Your task to perform on an android device: Open my contact list Image 0: 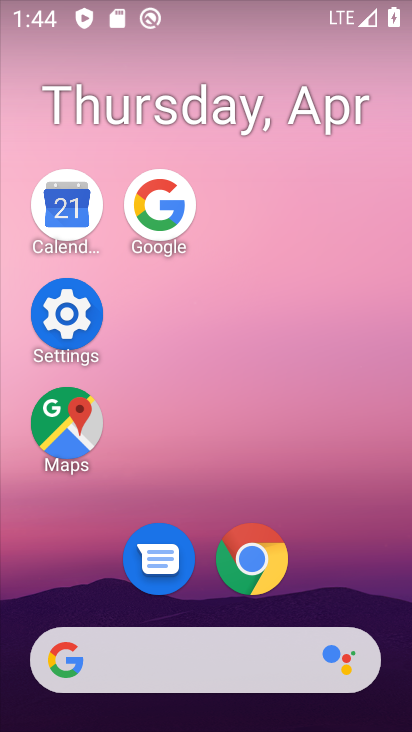
Step 0: drag from (266, 111) to (282, 29)
Your task to perform on an android device: Open my contact list Image 1: 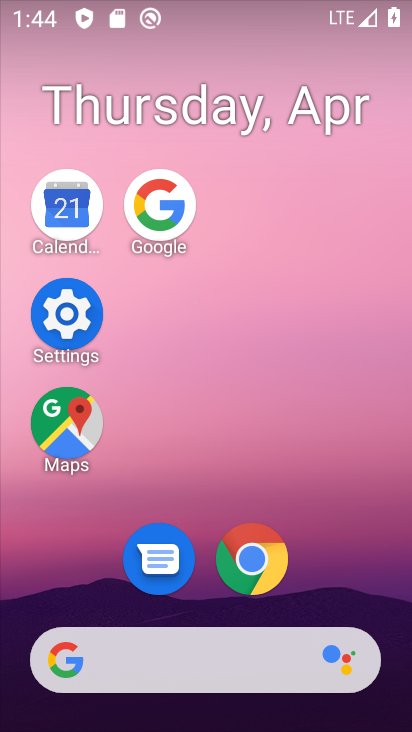
Step 1: drag from (330, 577) to (353, 42)
Your task to perform on an android device: Open my contact list Image 2: 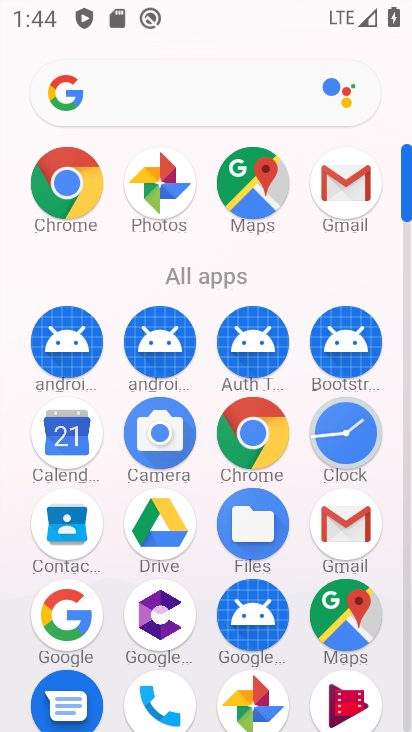
Step 2: click (72, 530)
Your task to perform on an android device: Open my contact list Image 3: 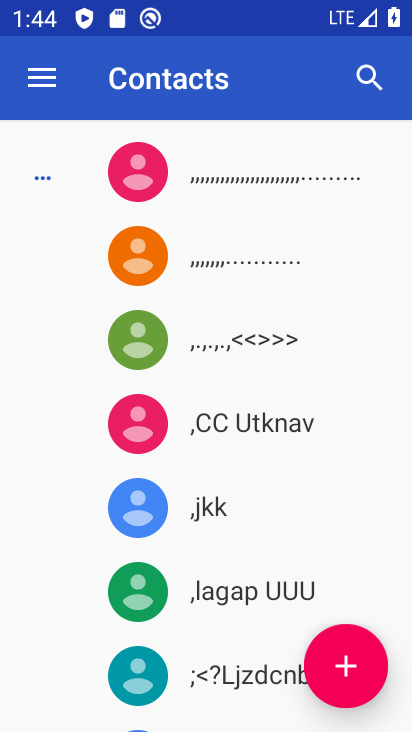
Step 3: task complete